Your task to perform on an android device: Add "acer nitro" to the cart on newegg, then select checkout. Image 0: 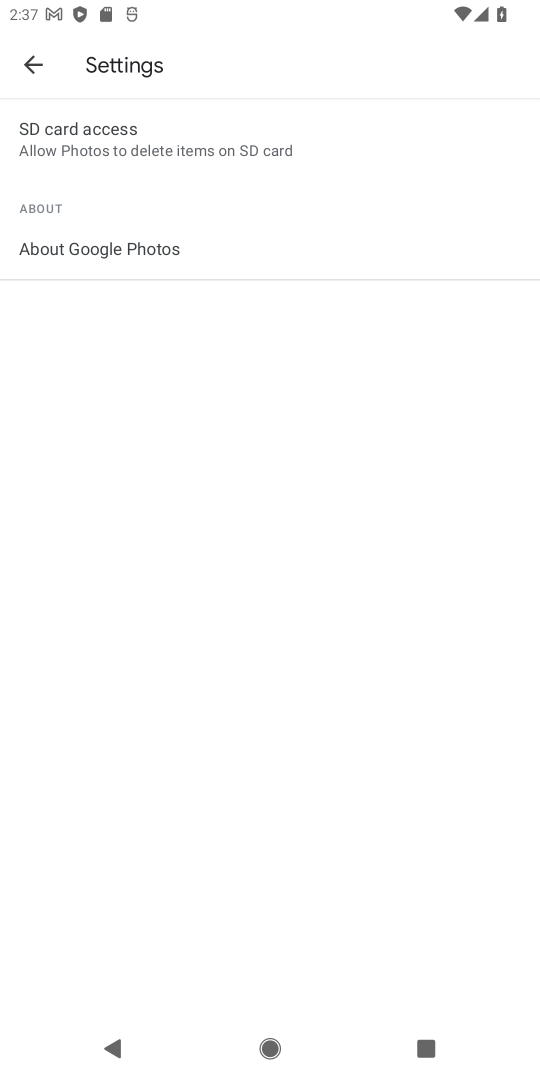
Step 0: press home button
Your task to perform on an android device: Add "acer nitro" to the cart on newegg, then select checkout. Image 1: 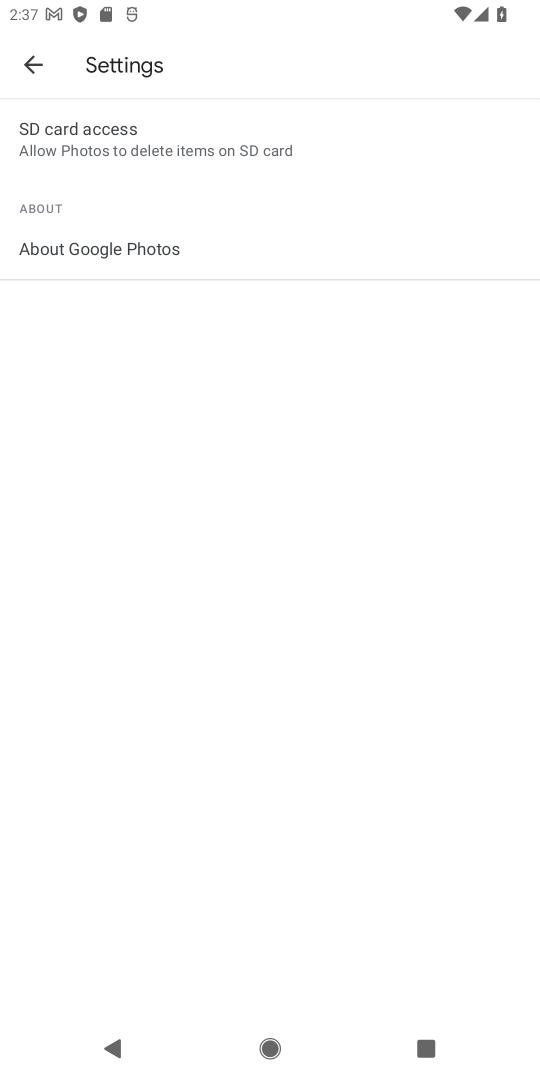
Step 1: press home button
Your task to perform on an android device: Add "acer nitro" to the cart on newegg, then select checkout. Image 2: 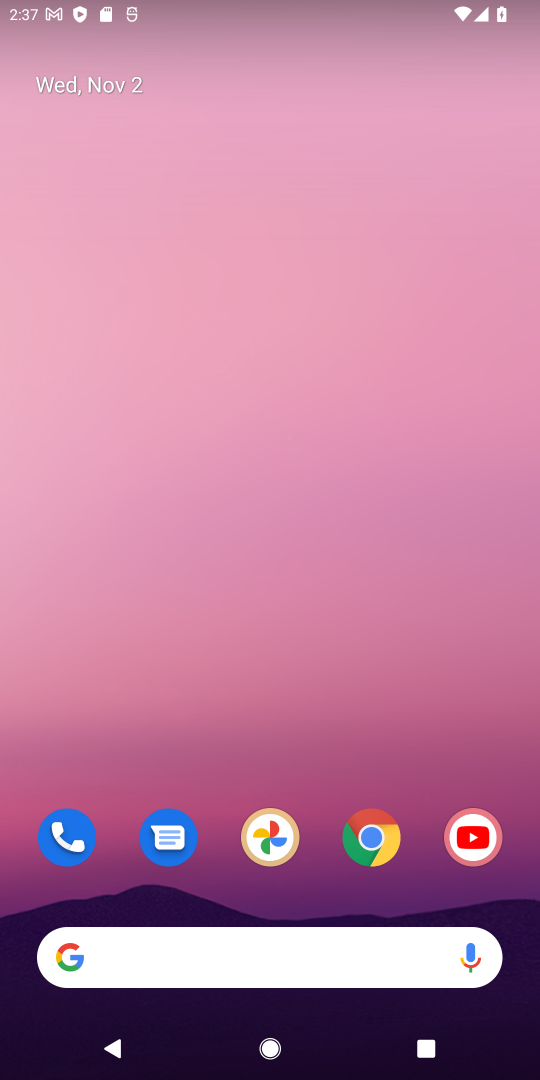
Step 2: drag from (304, 771) to (316, 0)
Your task to perform on an android device: Add "acer nitro" to the cart on newegg, then select checkout. Image 3: 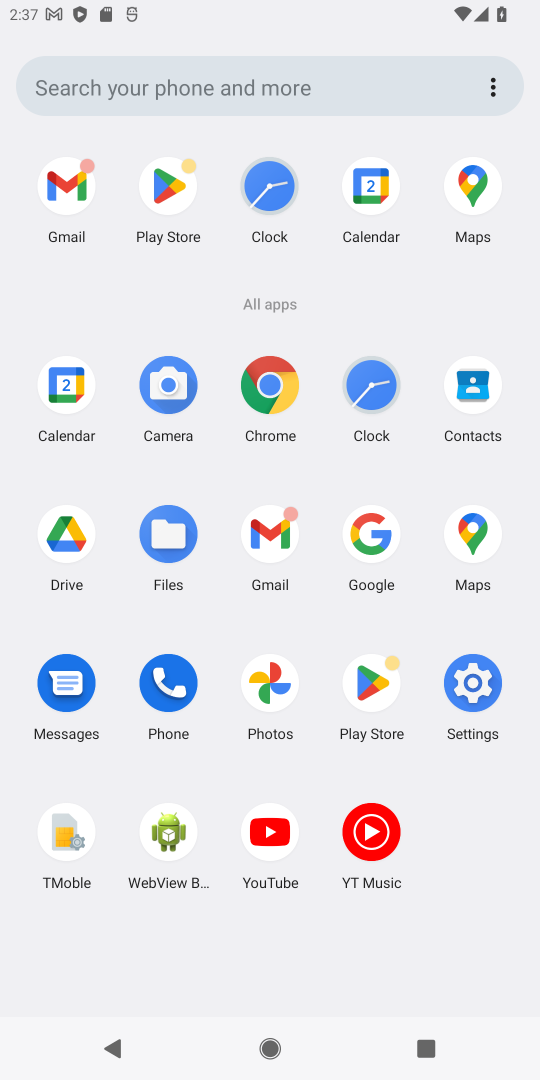
Step 3: click (267, 382)
Your task to perform on an android device: Add "acer nitro" to the cart on newegg, then select checkout. Image 4: 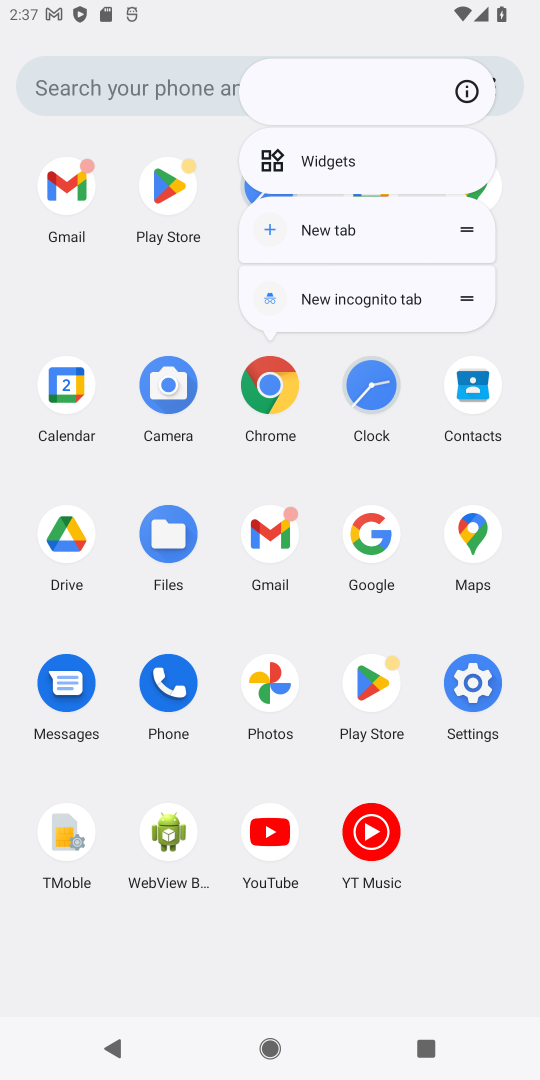
Step 4: click (270, 379)
Your task to perform on an android device: Add "acer nitro" to the cart on newegg, then select checkout. Image 5: 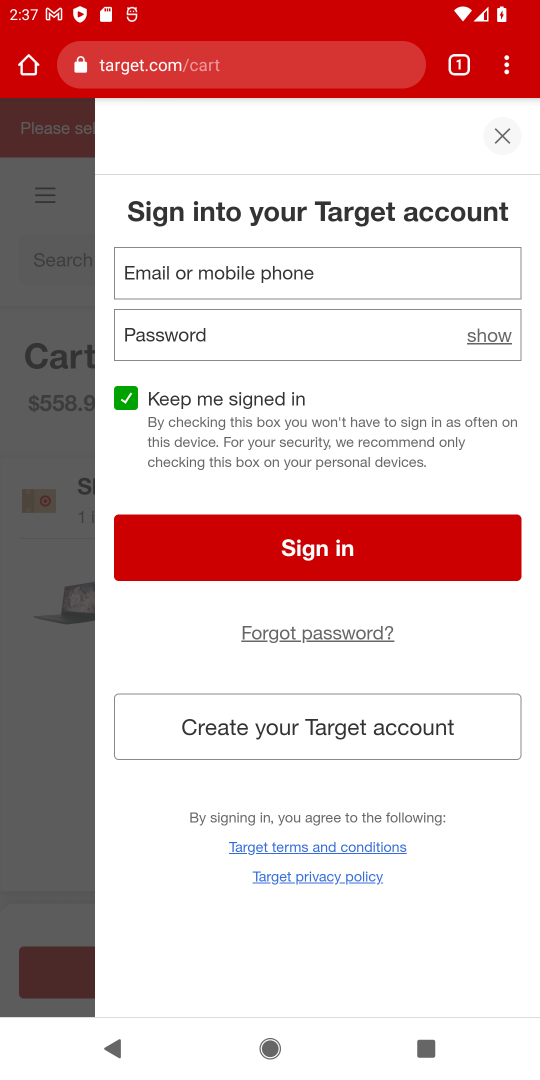
Step 5: click (133, 58)
Your task to perform on an android device: Add "acer nitro" to the cart on newegg, then select checkout. Image 6: 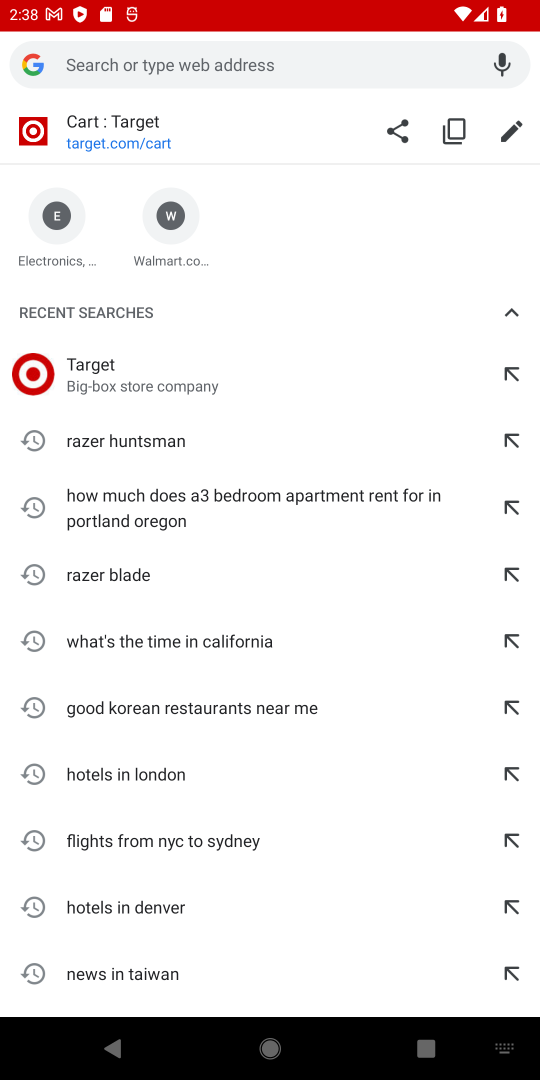
Step 6: click (138, 62)
Your task to perform on an android device: Add "acer nitro" to the cart on newegg, then select checkout. Image 7: 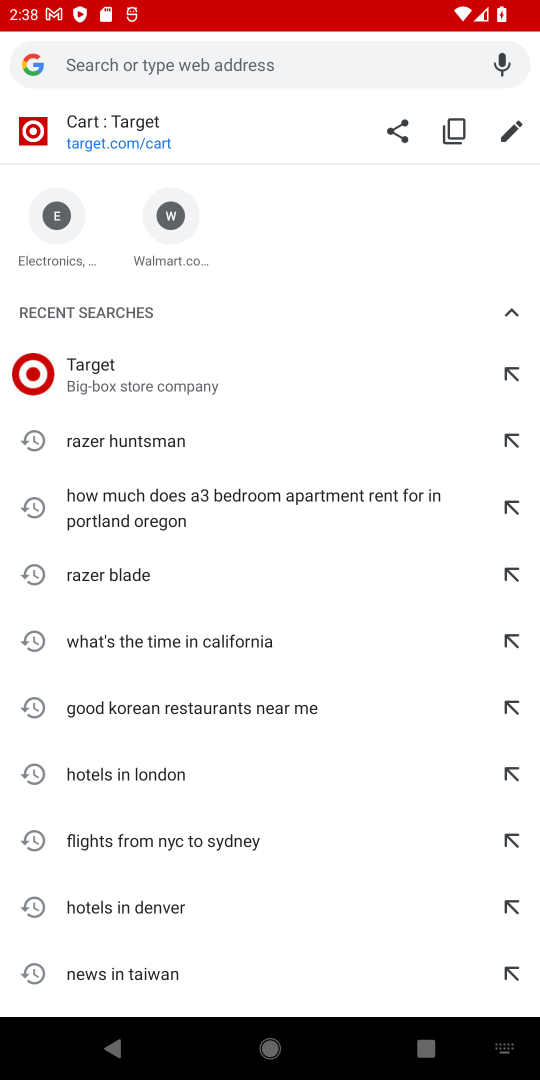
Step 7: type "newegg"
Your task to perform on an android device: Add "acer nitro" to the cart on newegg, then select checkout. Image 8: 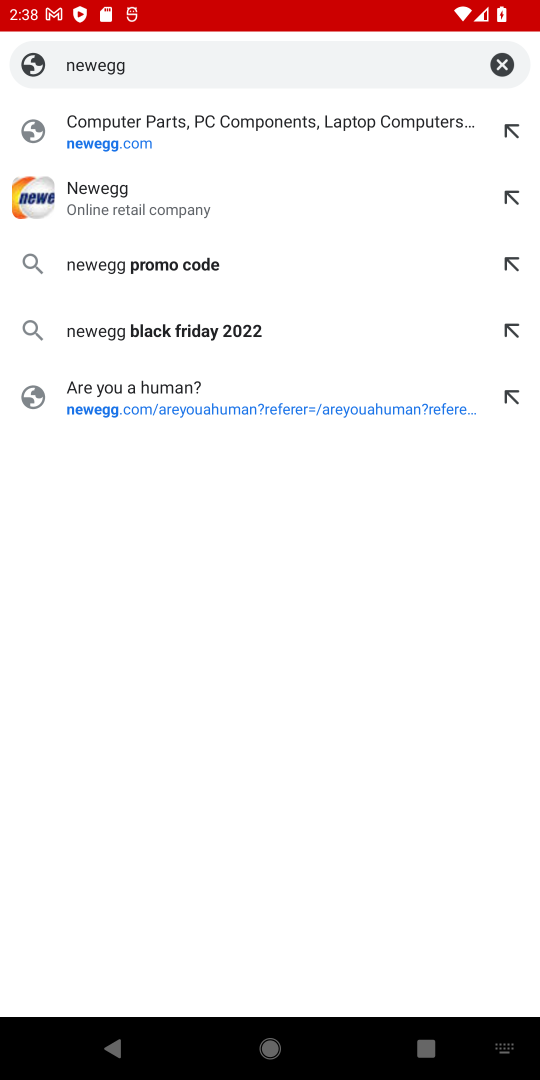
Step 8: click (166, 137)
Your task to perform on an android device: Add "acer nitro" to the cart on newegg, then select checkout. Image 9: 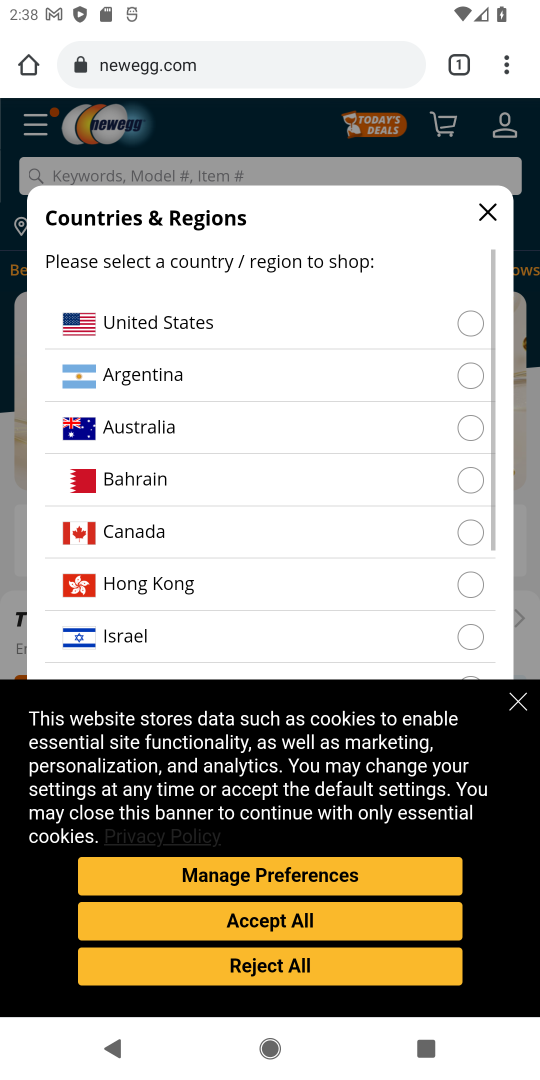
Step 9: click (515, 708)
Your task to perform on an android device: Add "acer nitro" to the cart on newegg, then select checkout. Image 10: 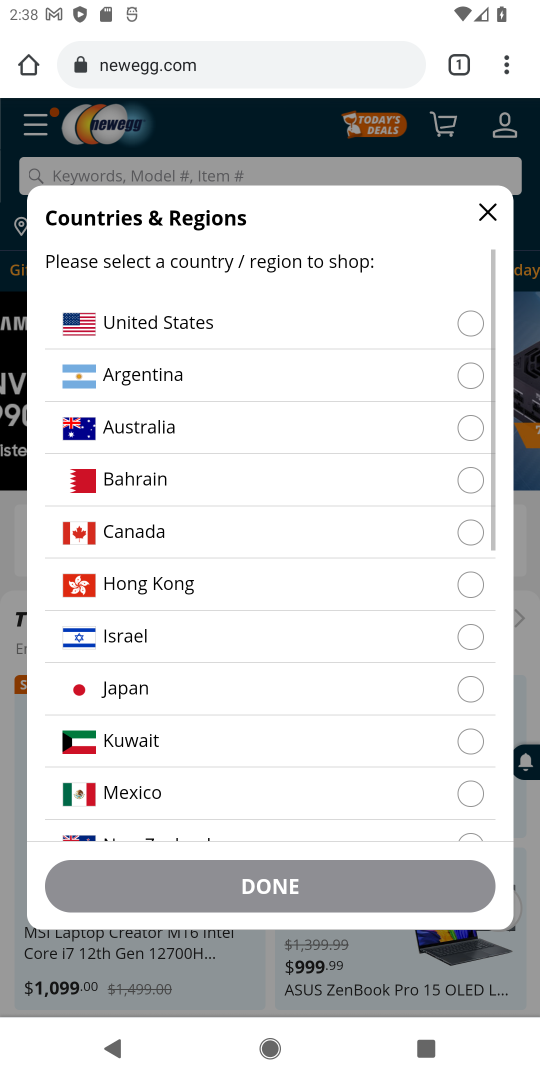
Step 10: drag from (280, 805) to (310, 301)
Your task to perform on an android device: Add "acer nitro" to the cart on newegg, then select checkout. Image 11: 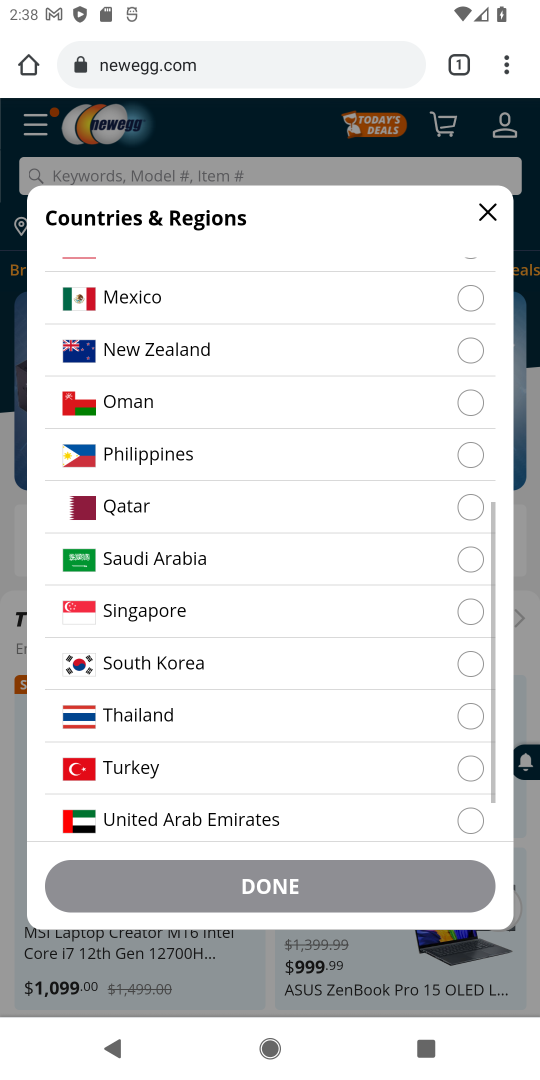
Step 11: drag from (210, 759) to (276, 317)
Your task to perform on an android device: Add "acer nitro" to the cart on newegg, then select checkout. Image 12: 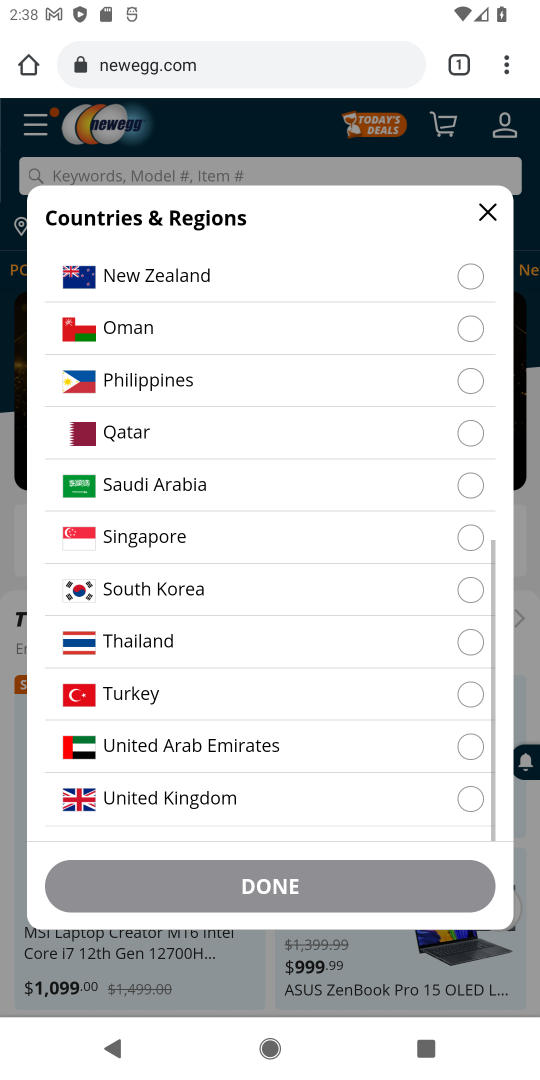
Step 12: drag from (284, 313) to (242, 906)
Your task to perform on an android device: Add "acer nitro" to the cart on newegg, then select checkout. Image 13: 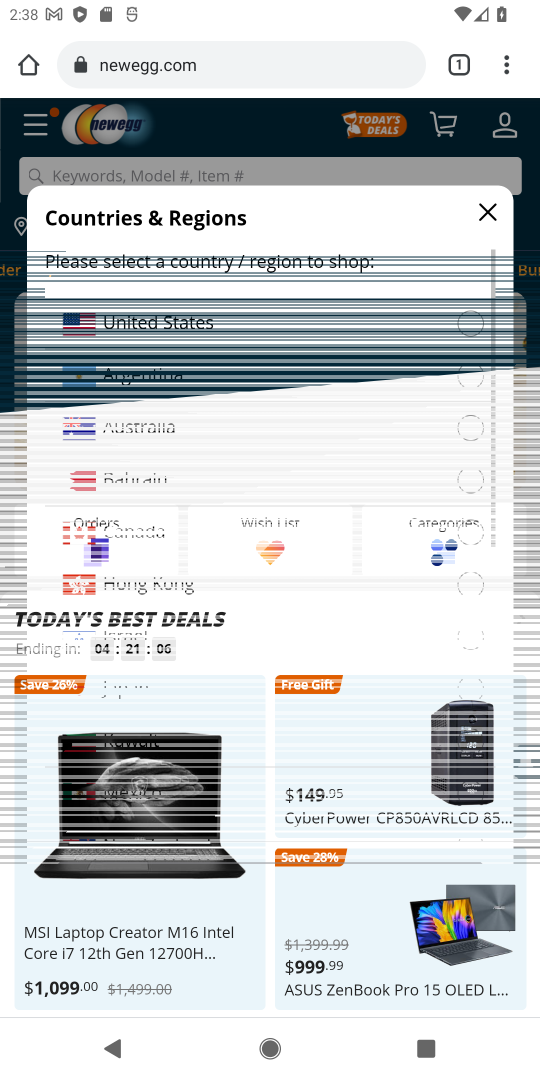
Step 13: click (466, 325)
Your task to perform on an android device: Add "acer nitro" to the cart on newegg, then select checkout. Image 14: 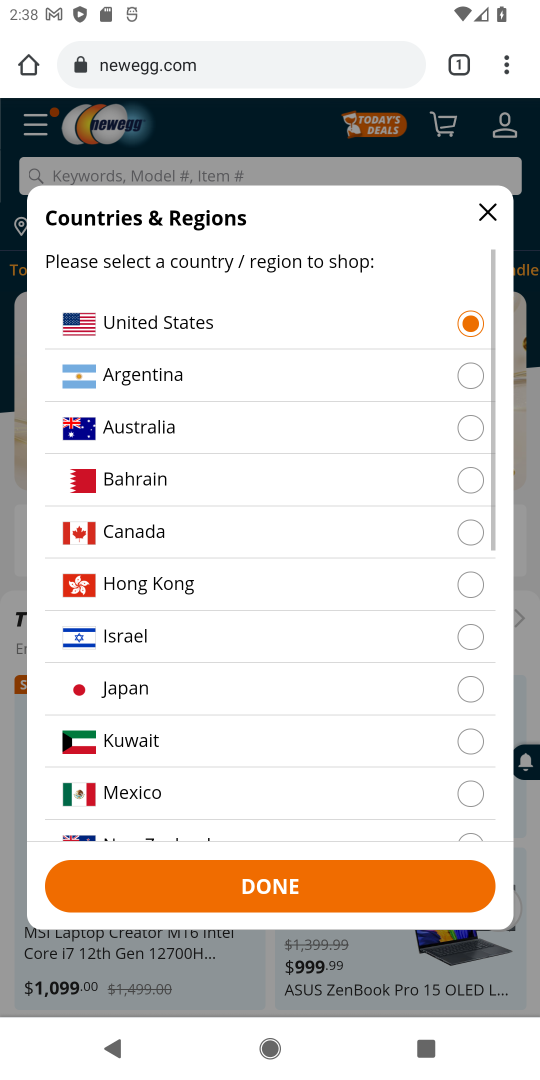
Step 14: click (243, 903)
Your task to perform on an android device: Add "acer nitro" to the cart on newegg, then select checkout. Image 15: 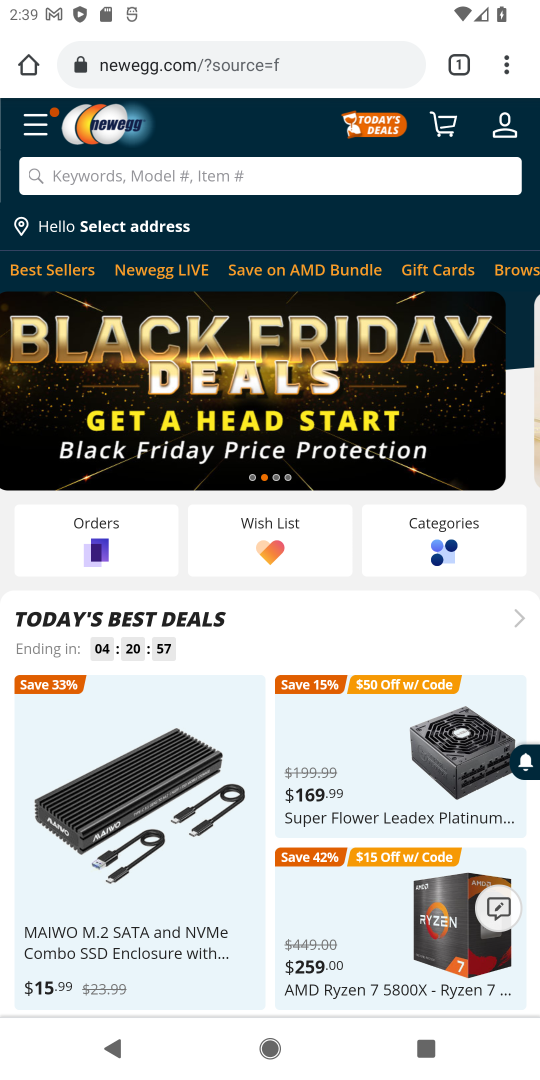
Step 15: click (129, 168)
Your task to perform on an android device: Add "acer nitro" to the cart on newegg, then select checkout. Image 16: 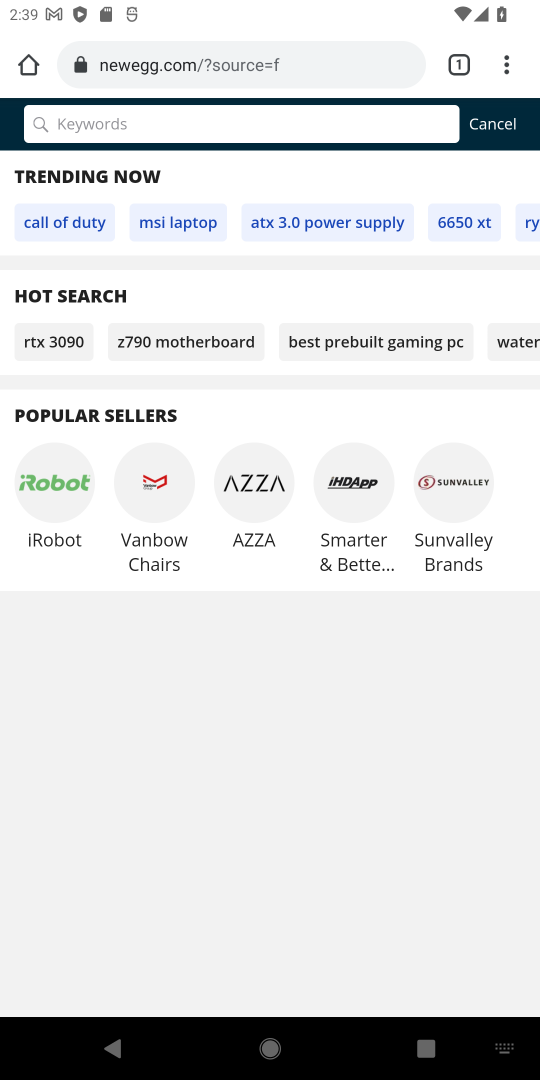
Step 16: click (98, 117)
Your task to perform on an android device: Add "acer nitro" to the cart on newegg, then select checkout. Image 17: 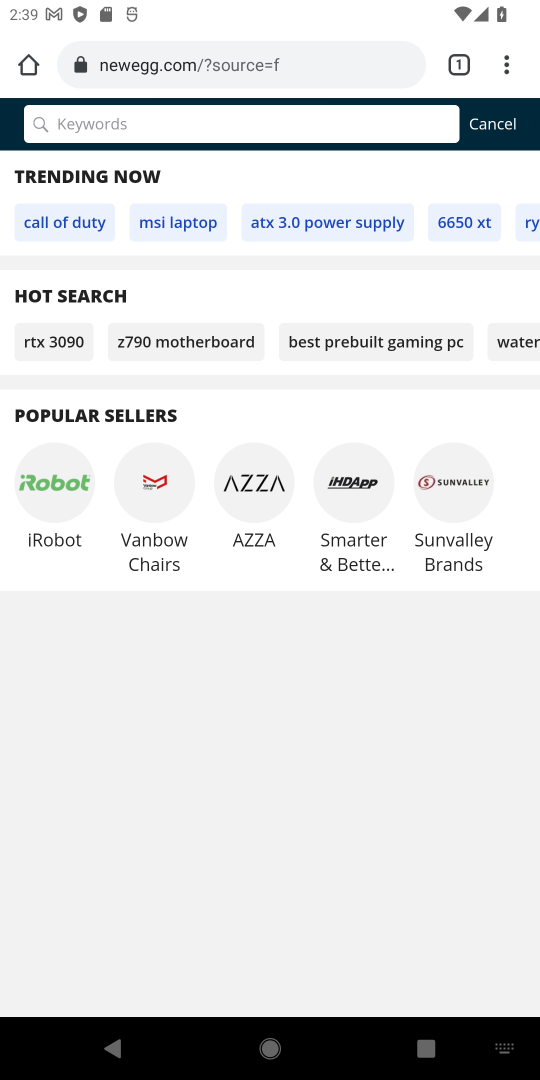
Step 17: type "acer nitro"
Your task to perform on an android device: Add "acer nitro" to the cart on newegg, then select checkout. Image 18: 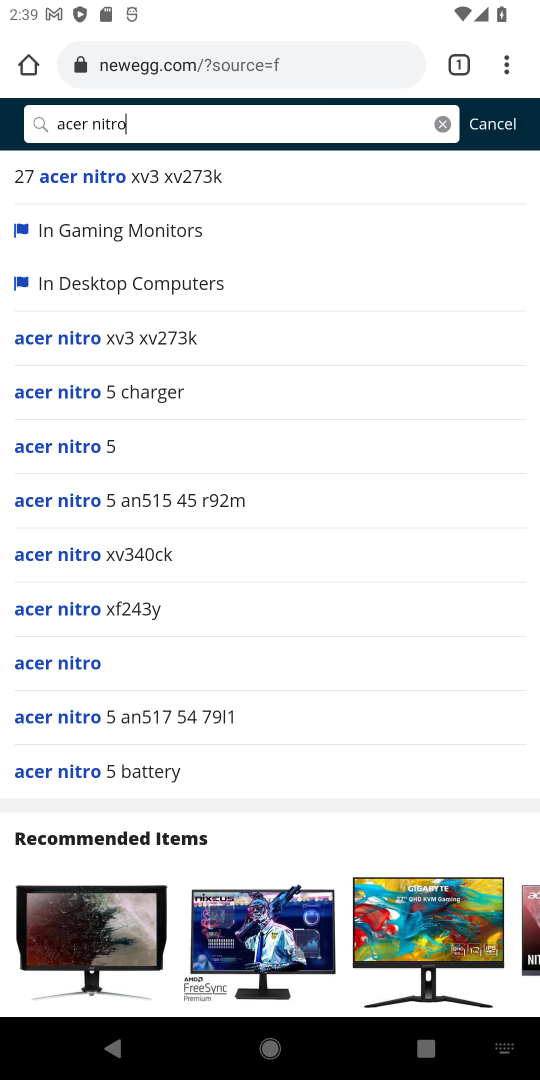
Step 18: click (113, 444)
Your task to perform on an android device: Add "acer nitro" to the cart on newegg, then select checkout. Image 19: 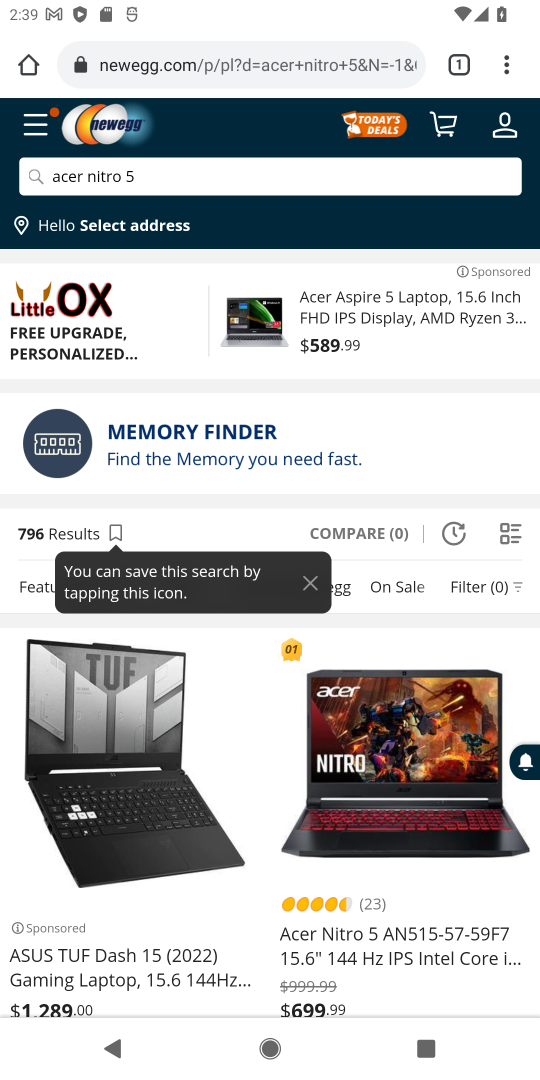
Step 19: click (387, 778)
Your task to perform on an android device: Add "acer nitro" to the cart on newegg, then select checkout. Image 20: 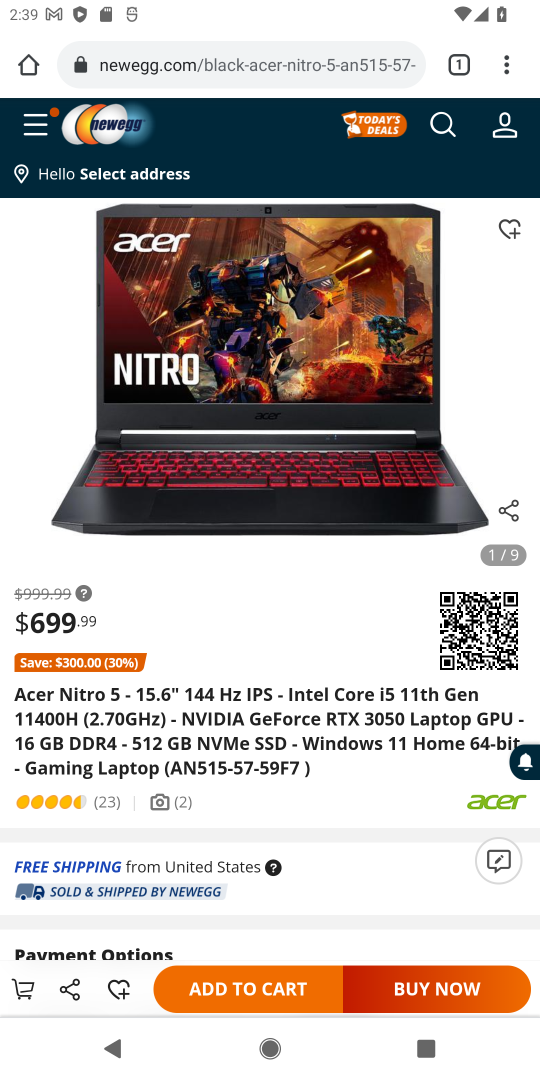
Step 20: drag from (295, 819) to (297, 289)
Your task to perform on an android device: Add "acer nitro" to the cart on newegg, then select checkout. Image 21: 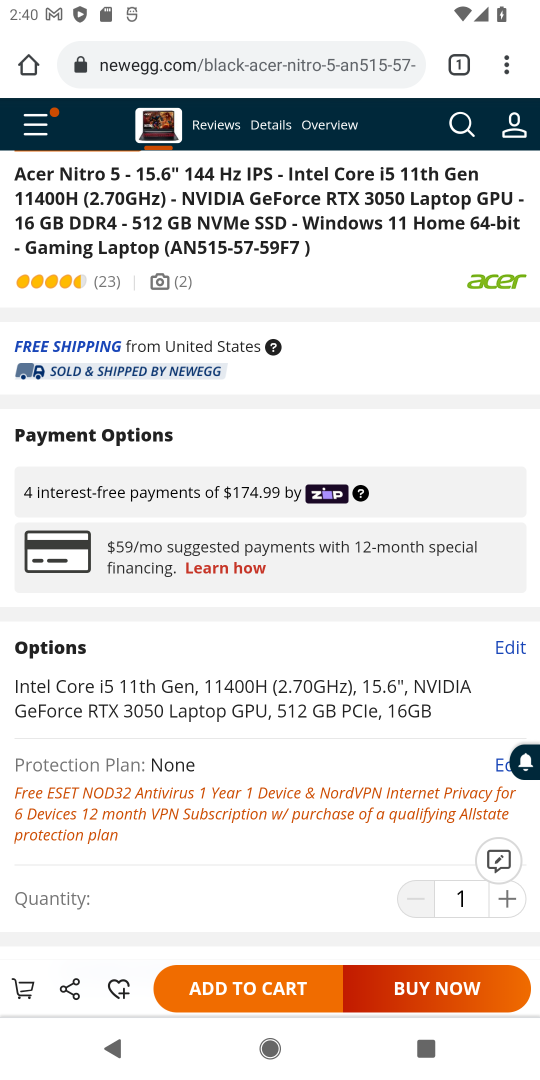
Step 21: click (241, 981)
Your task to perform on an android device: Add "acer nitro" to the cart on newegg, then select checkout. Image 22: 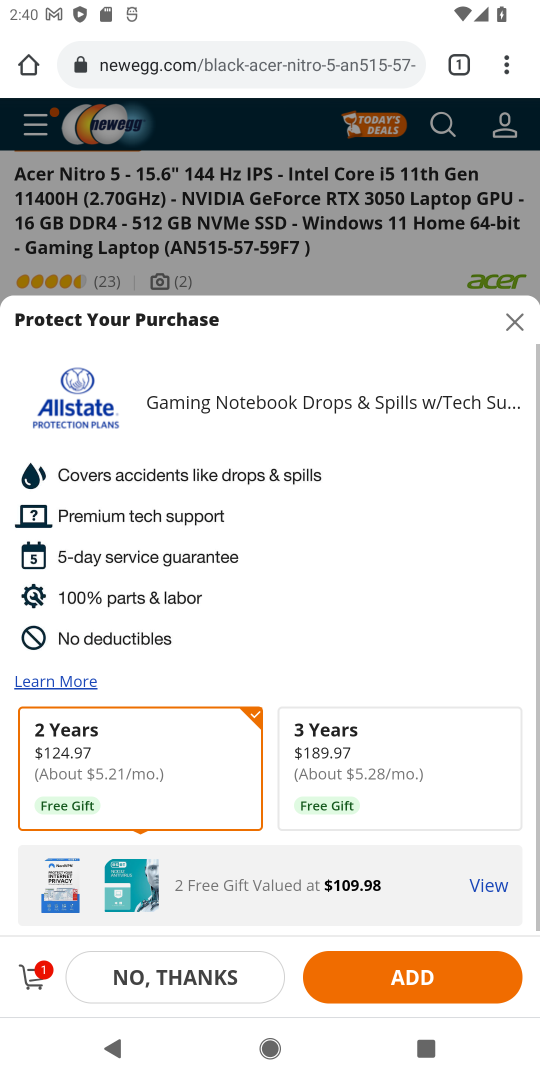
Step 22: click (24, 975)
Your task to perform on an android device: Add "acer nitro" to the cart on newegg, then select checkout. Image 23: 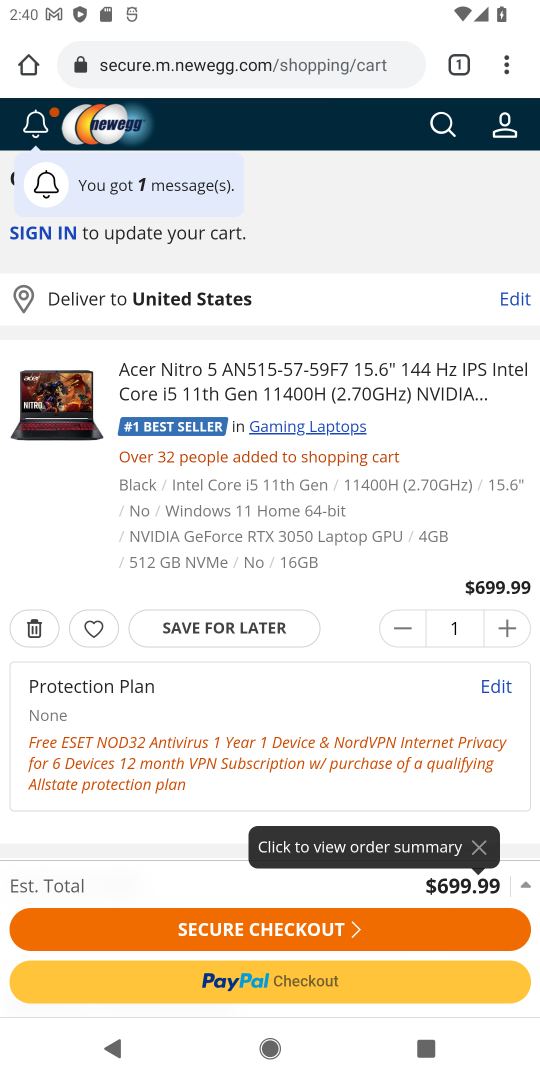
Step 23: click (218, 928)
Your task to perform on an android device: Add "acer nitro" to the cart on newegg, then select checkout. Image 24: 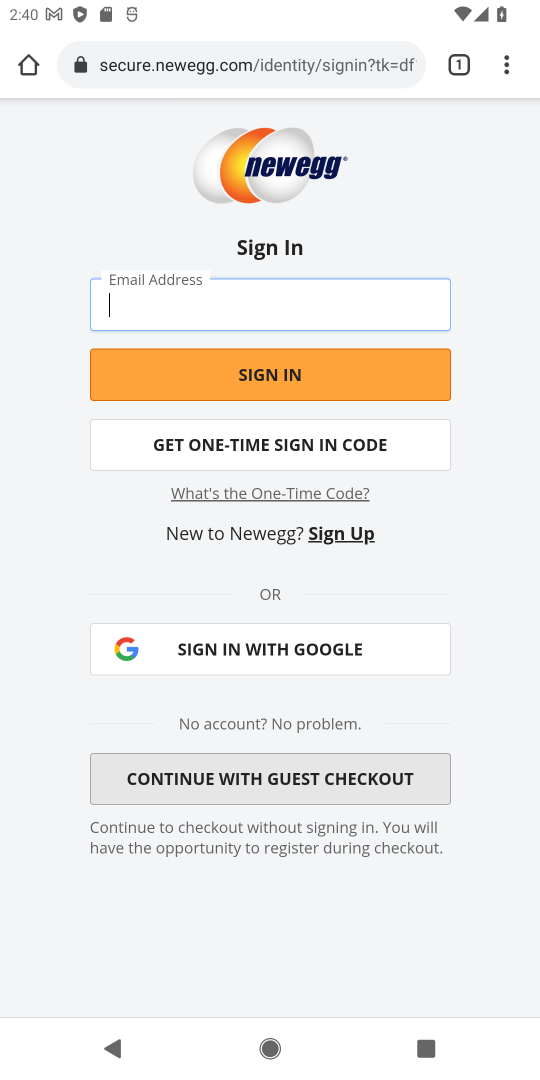
Step 24: task complete